Your task to perform on an android device: turn on priority inbox in the gmail app Image 0: 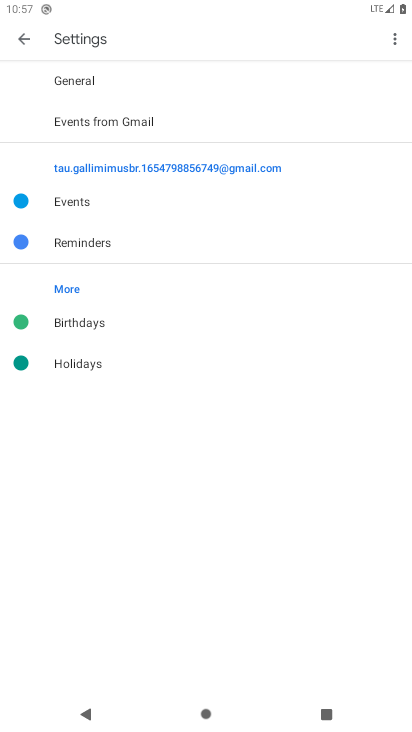
Step 0: press home button
Your task to perform on an android device: turn on priority inbox in the gmail app Image 1: 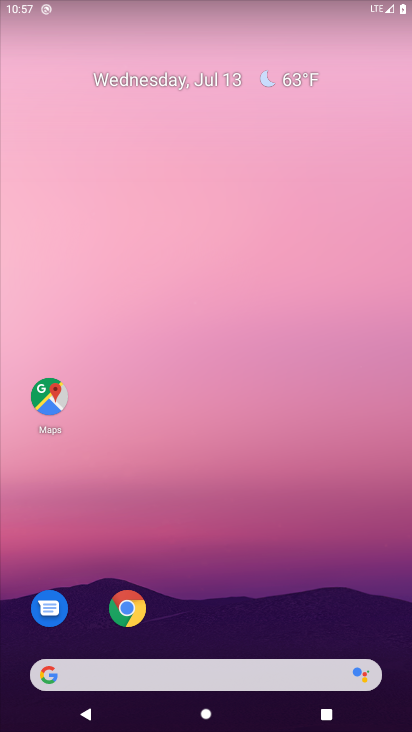
Step 1: drag from (220, 599) to (362, 86)
Your task to perform on an android device: turn on priority inbox in the gmail app Image 2: 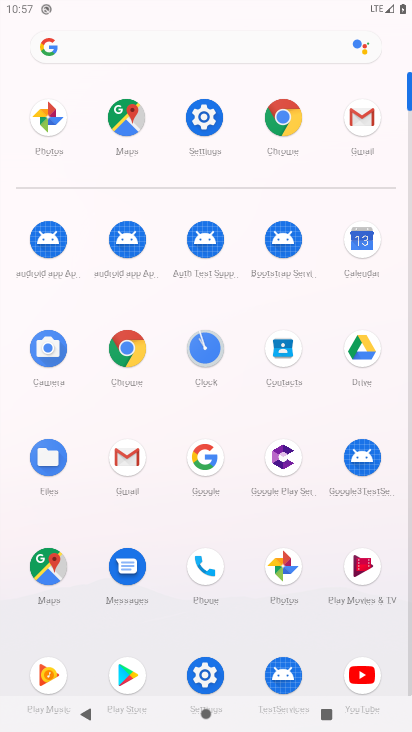
Step 2: click (127, 463)
Your task to perform on an android device: turn on priority inbox in the gmail app Image 3: 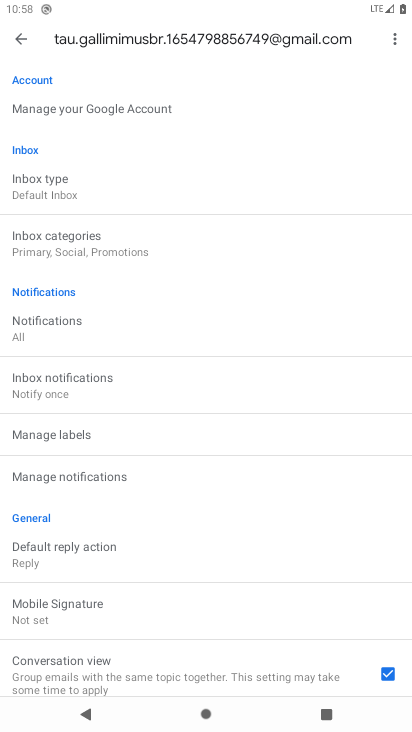
Step 3: click (85, 185)
Your task to perform on an android device: turn on priority inbox in the gmail app Image 4: 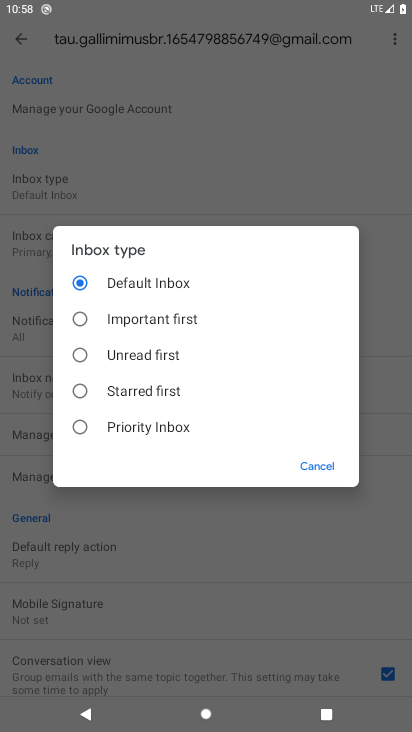
Step 4: click (122, 424)
Your task to perform on an android device: turn on priority inbox in the gmail app Image 5: 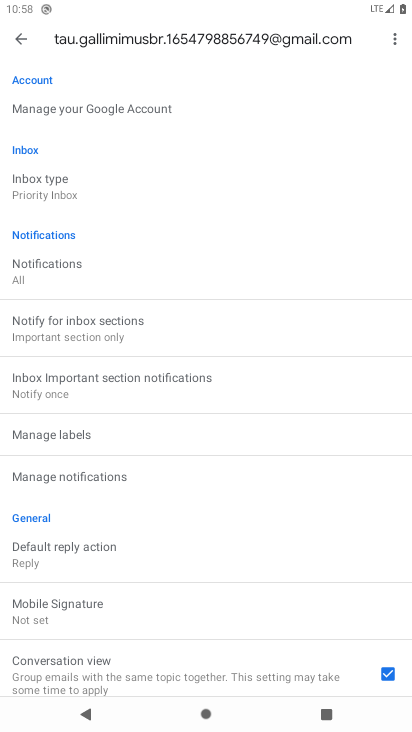
Step 5: task complete